Your task to perform on an android device: open a new tab in the chrome app Image 0: 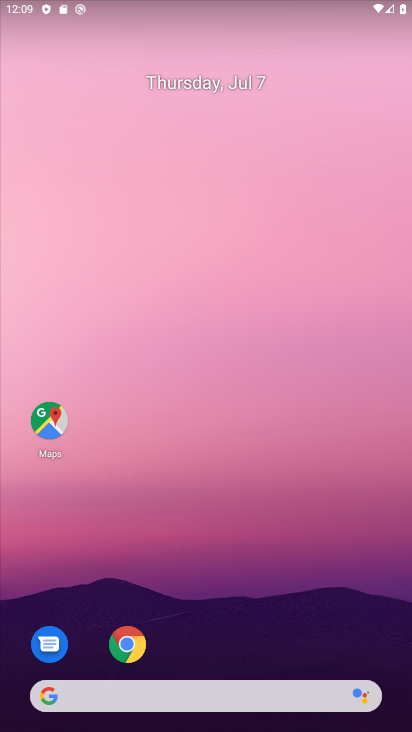
Step 0: click (126, 654)
Your task to perform on an android device: open a new tab in the chrome app Image 1: 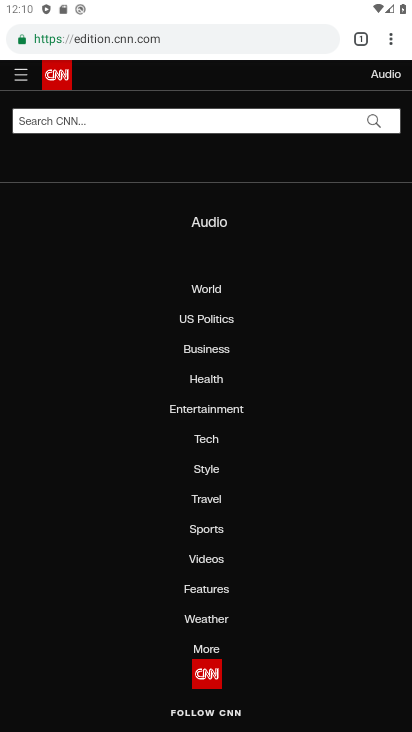
Step 1: click (387, 47)
Your task to perform on an android device: open a new tab in the chrome app Image 2: 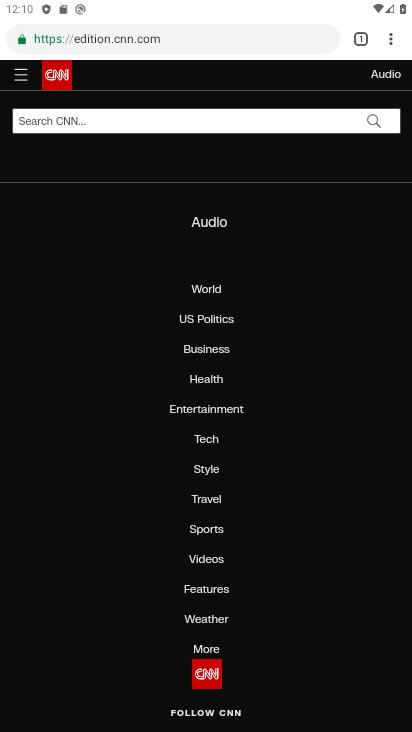
Step 2: task complete